Your task to perform on an android device: uninstall "Calculator" Image 0: 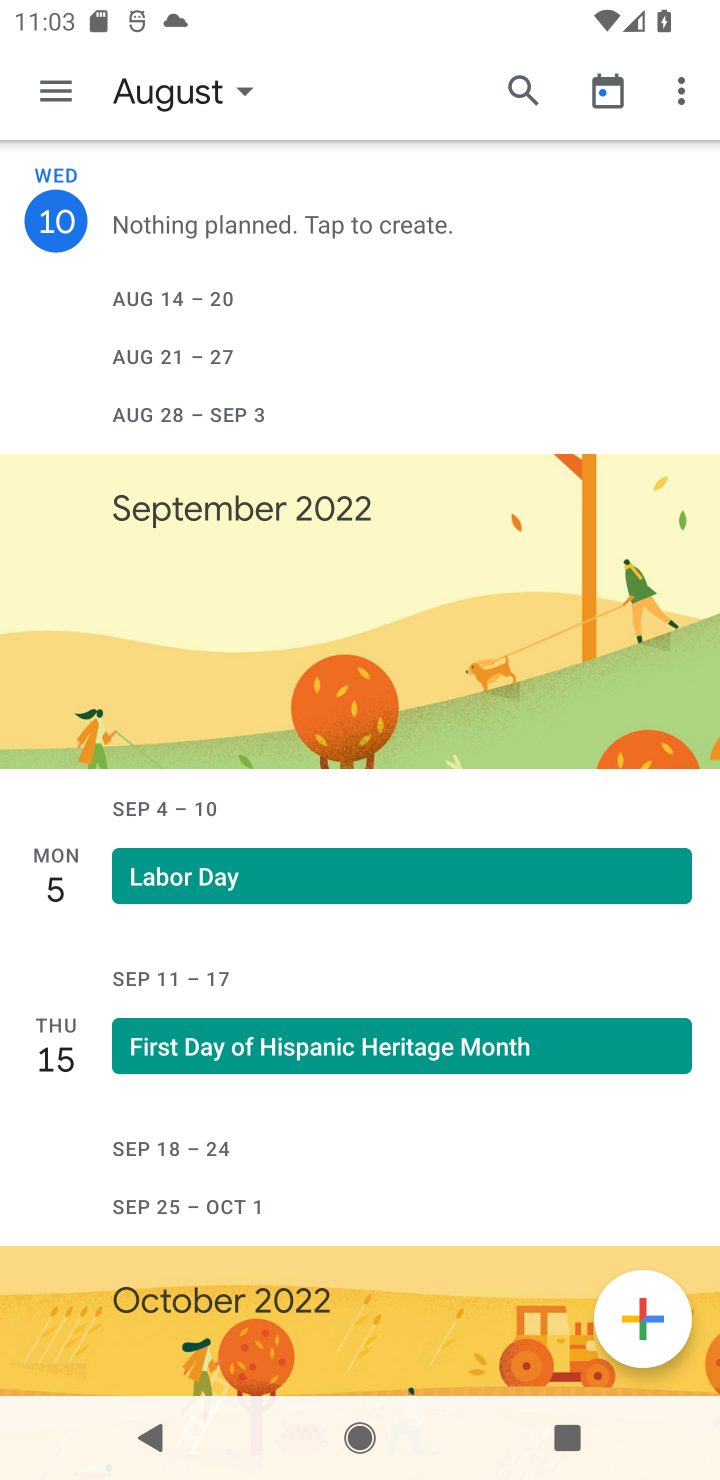
Step 0: press home button
Your task to perform on an android device: uninstall "Calculator" Image 1: 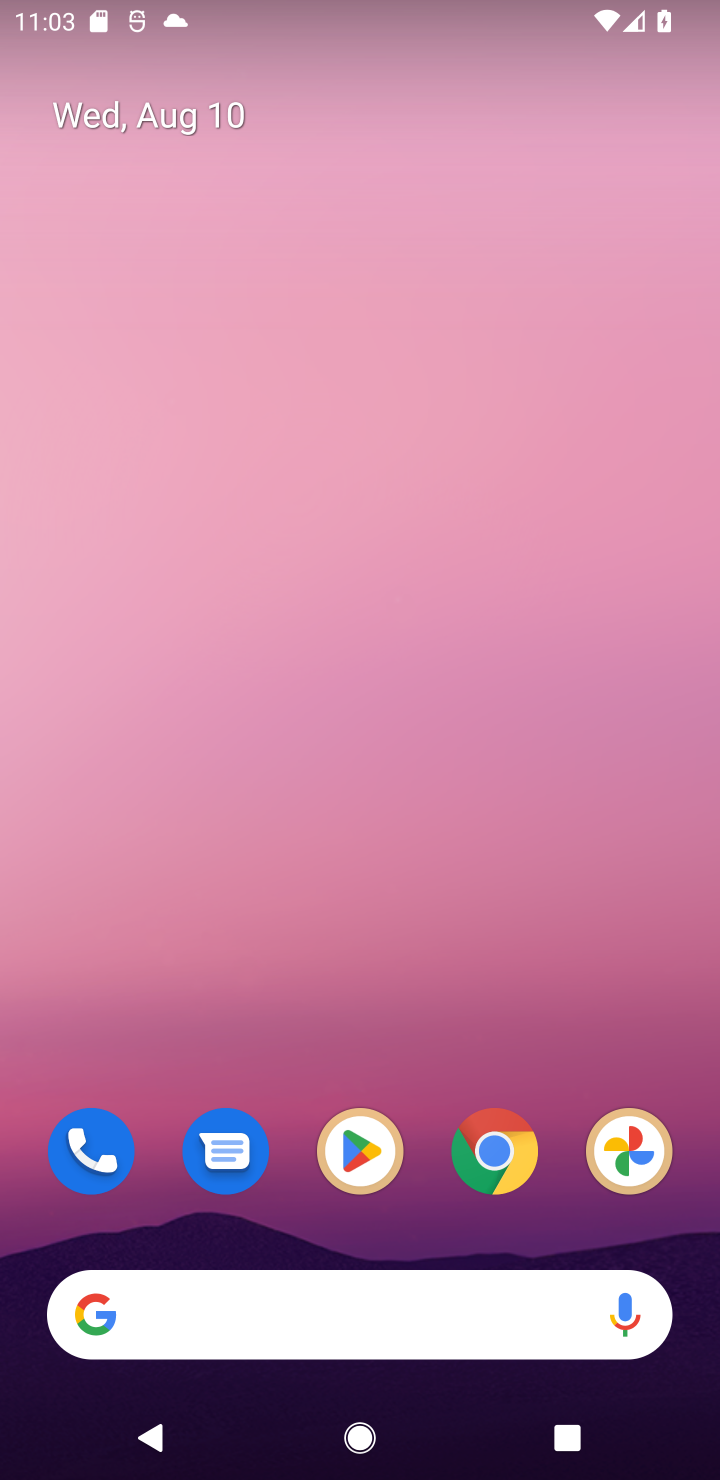
Step 1: drag from (436, 1176) to (411, 208)
Your task to perform on an android device: uninstall "Calculator" Image 2: 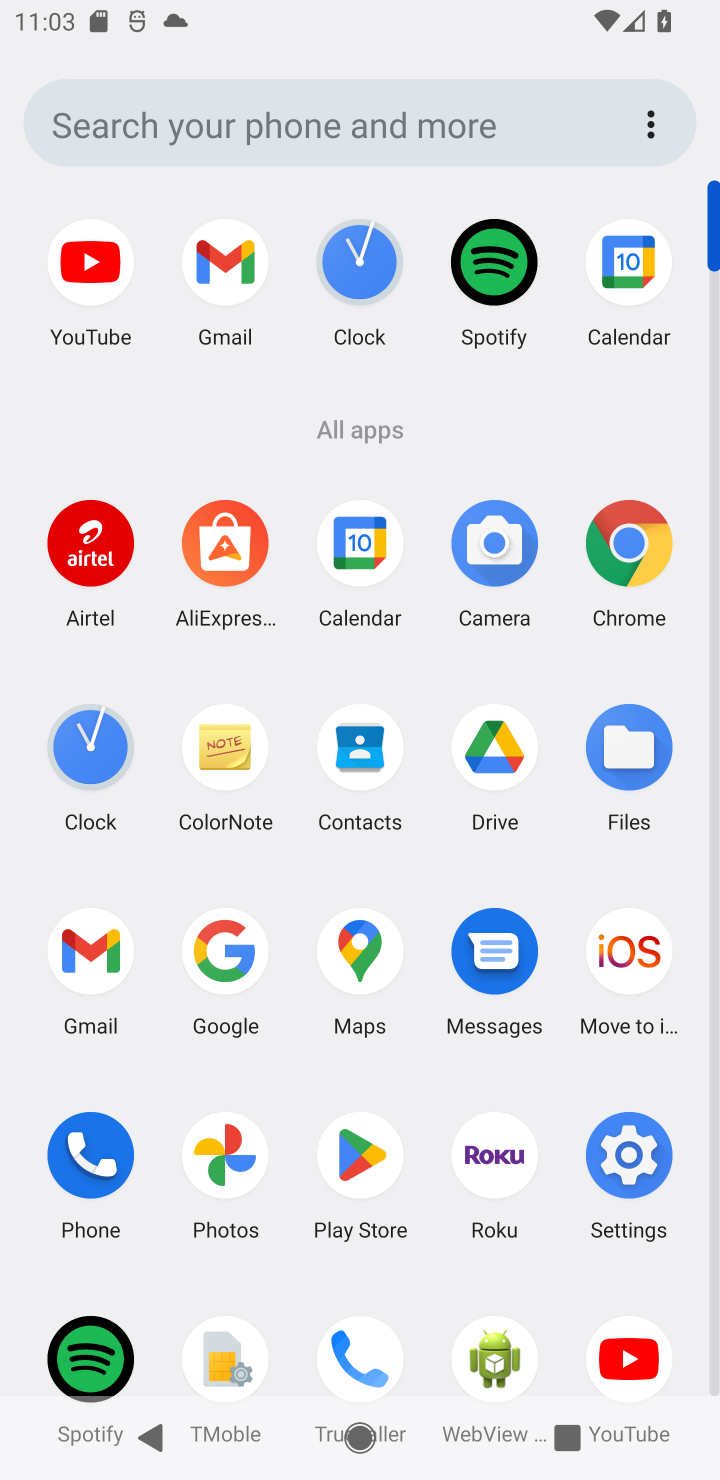
Step 2: click (348, 1153)
Your task to perform on an android device: uninstall "Calculator" Image 3: 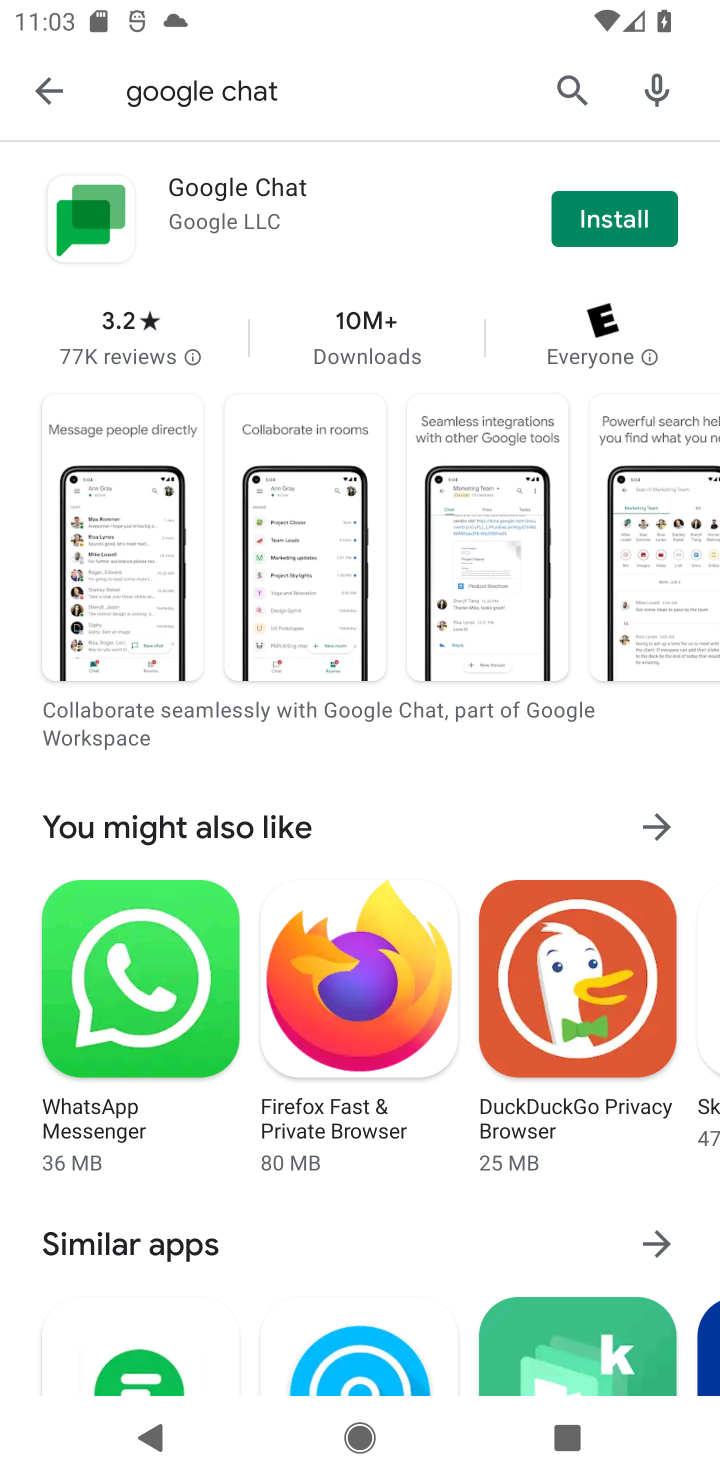
Step 3: click (566, 87)
Your task to perform on an android device: uninstall "Calculator" Image 4: 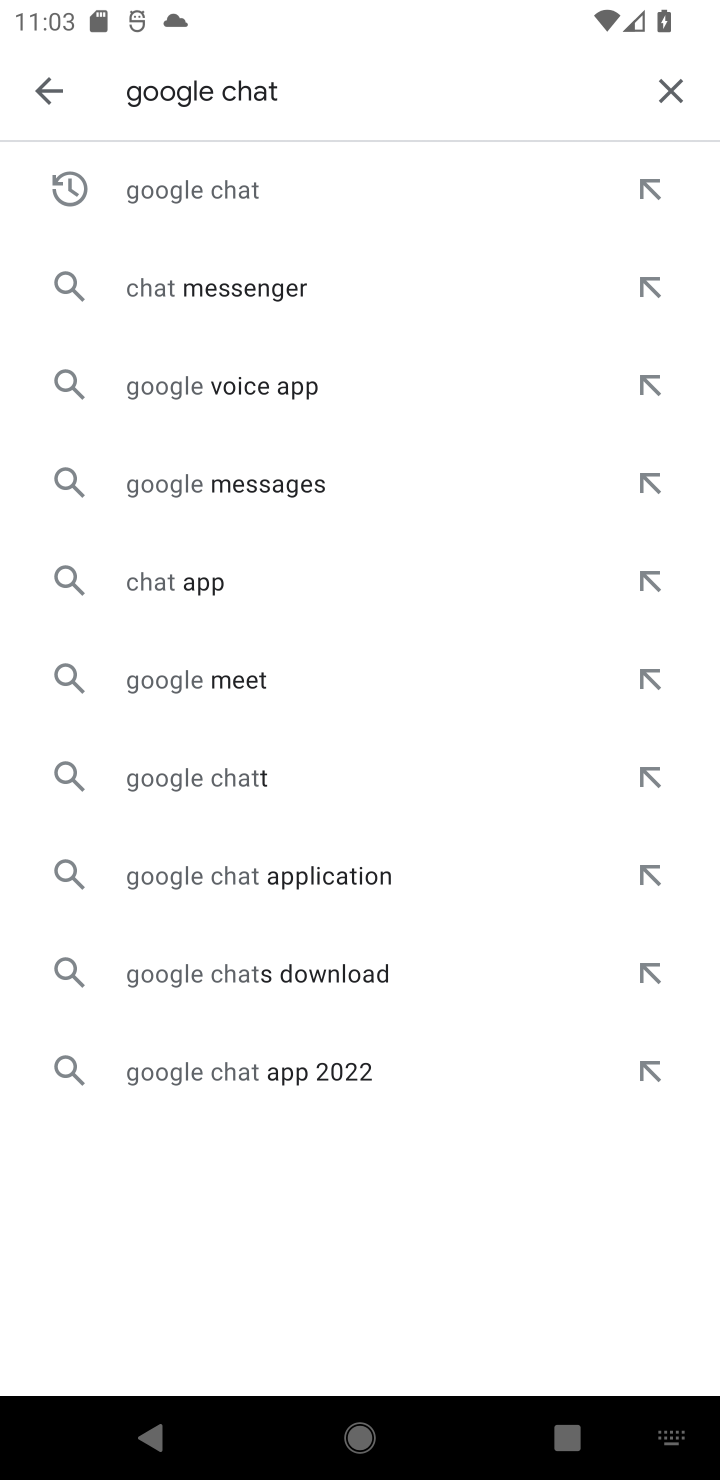
Step 4: click (664, 83)
Your task to perform on an android device: uninstall "Calculator" Image 5: 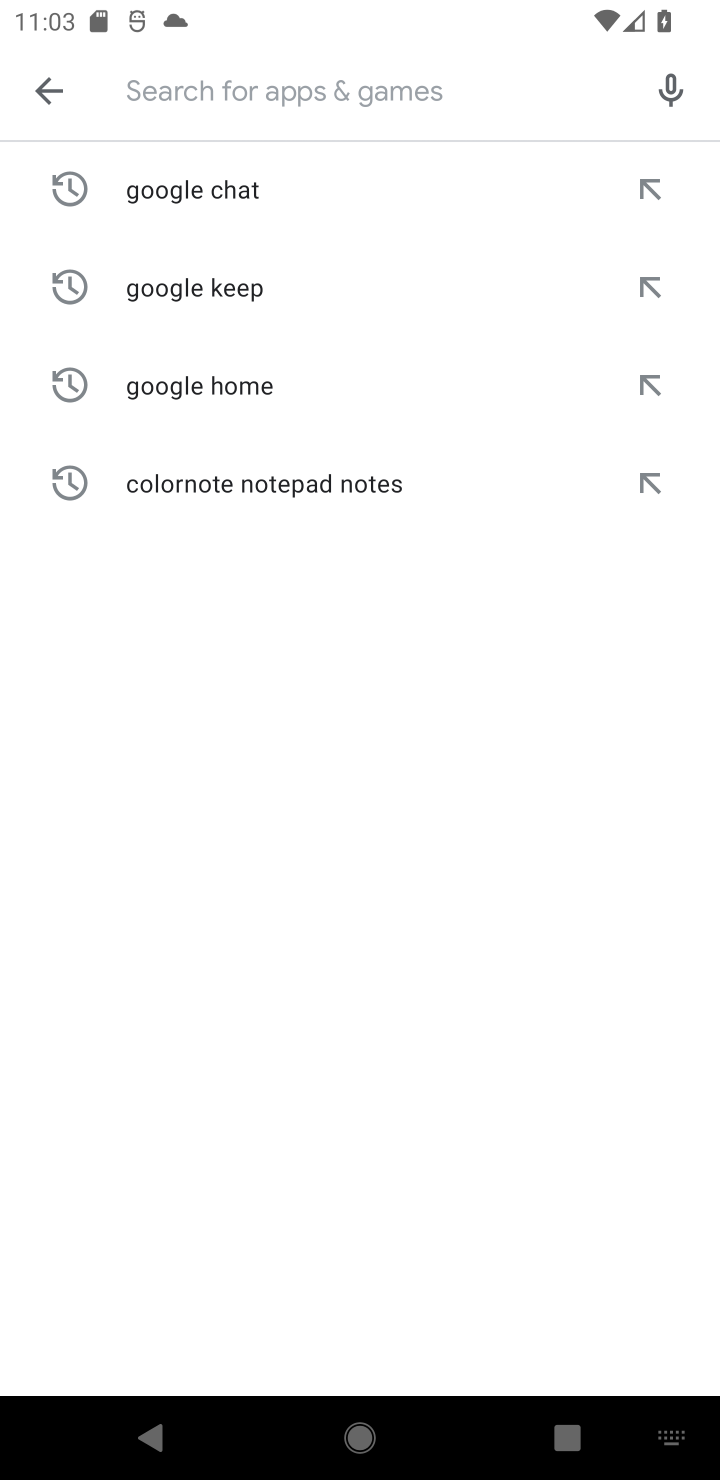
Step 5: type "Calculator"
Your task to perform on an android device: uninstall "Calculator" Image 6: 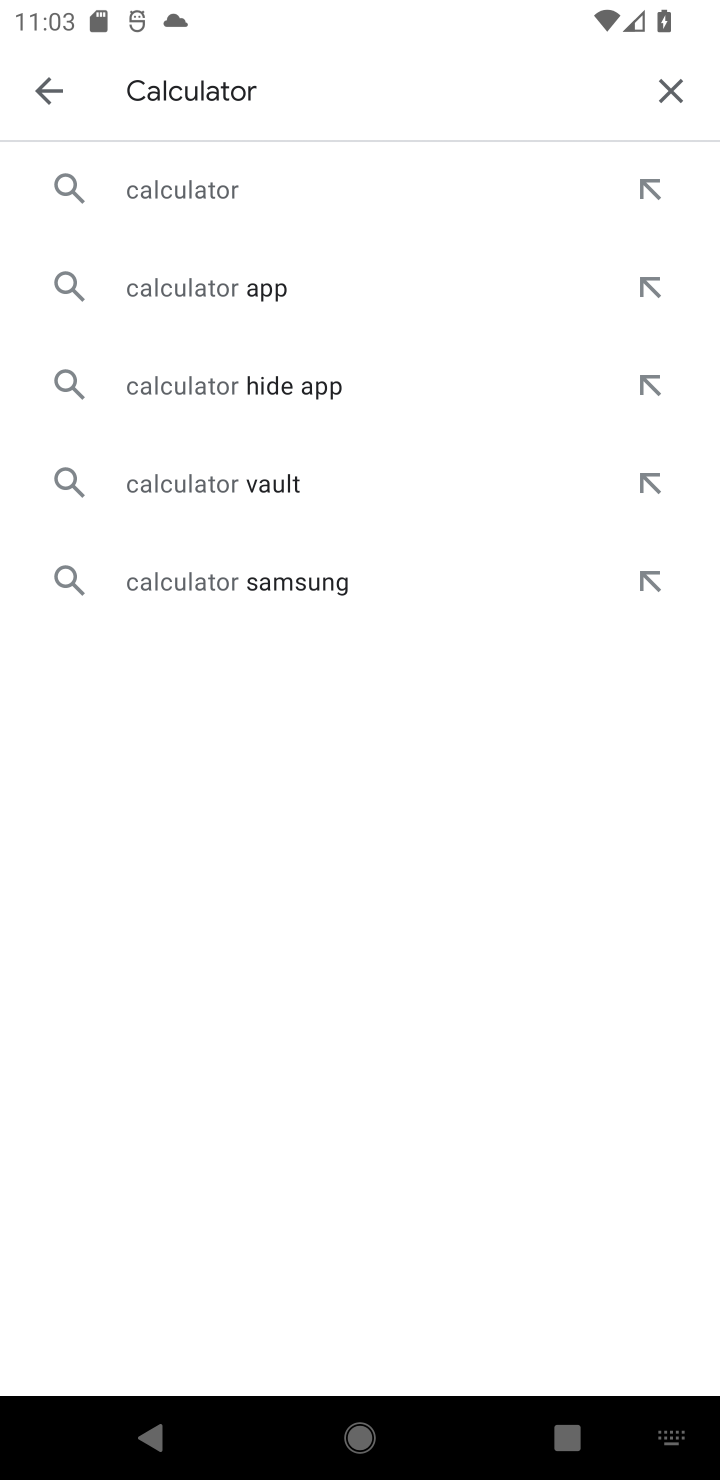
Step 6: click (238, 190)
Your task to perform on an android device: uninstall "Calculator" Image 7: 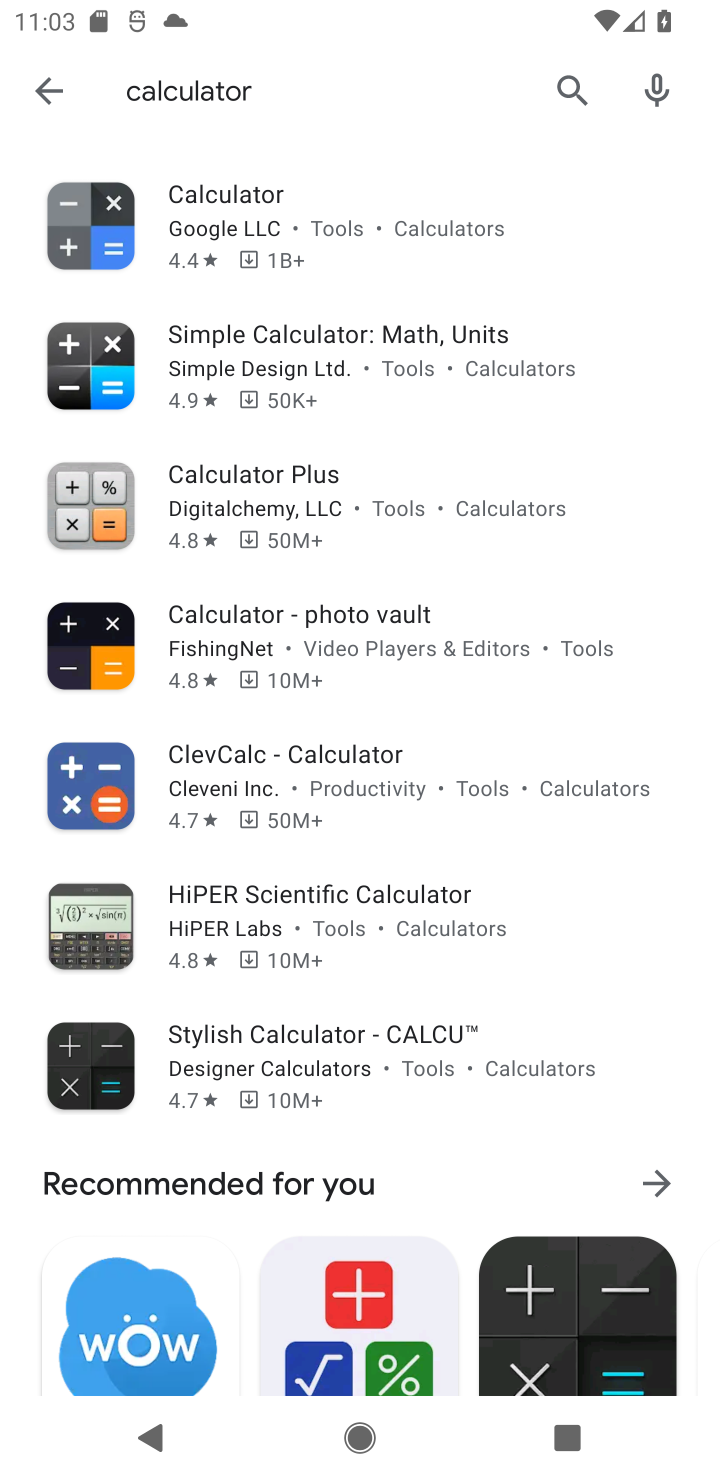
Step 7: click (266, 209)
Your task to perform on an android device: uninstall "Calculator" Image 8: 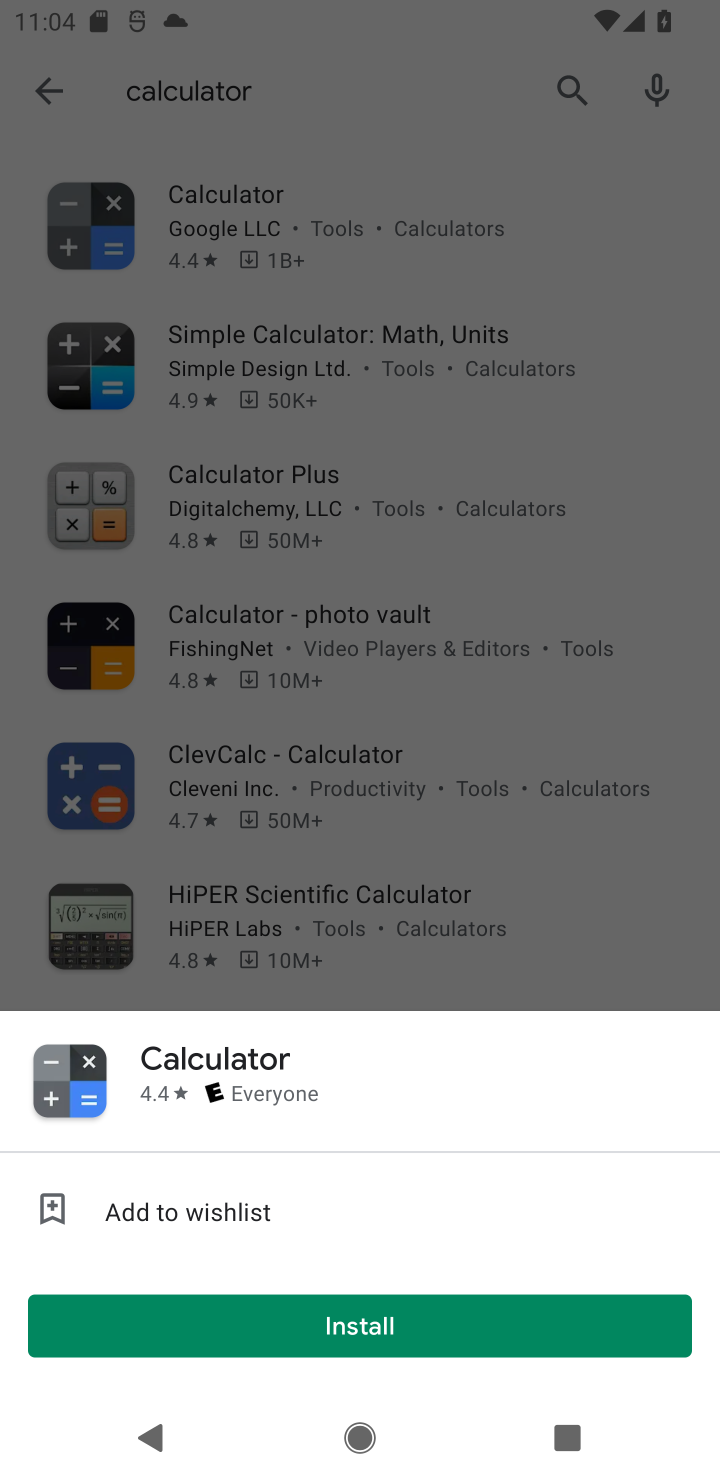
Step 8: click (389, 1336)
Your task to perform on an android device: uninstall "Calculator" Image 9: 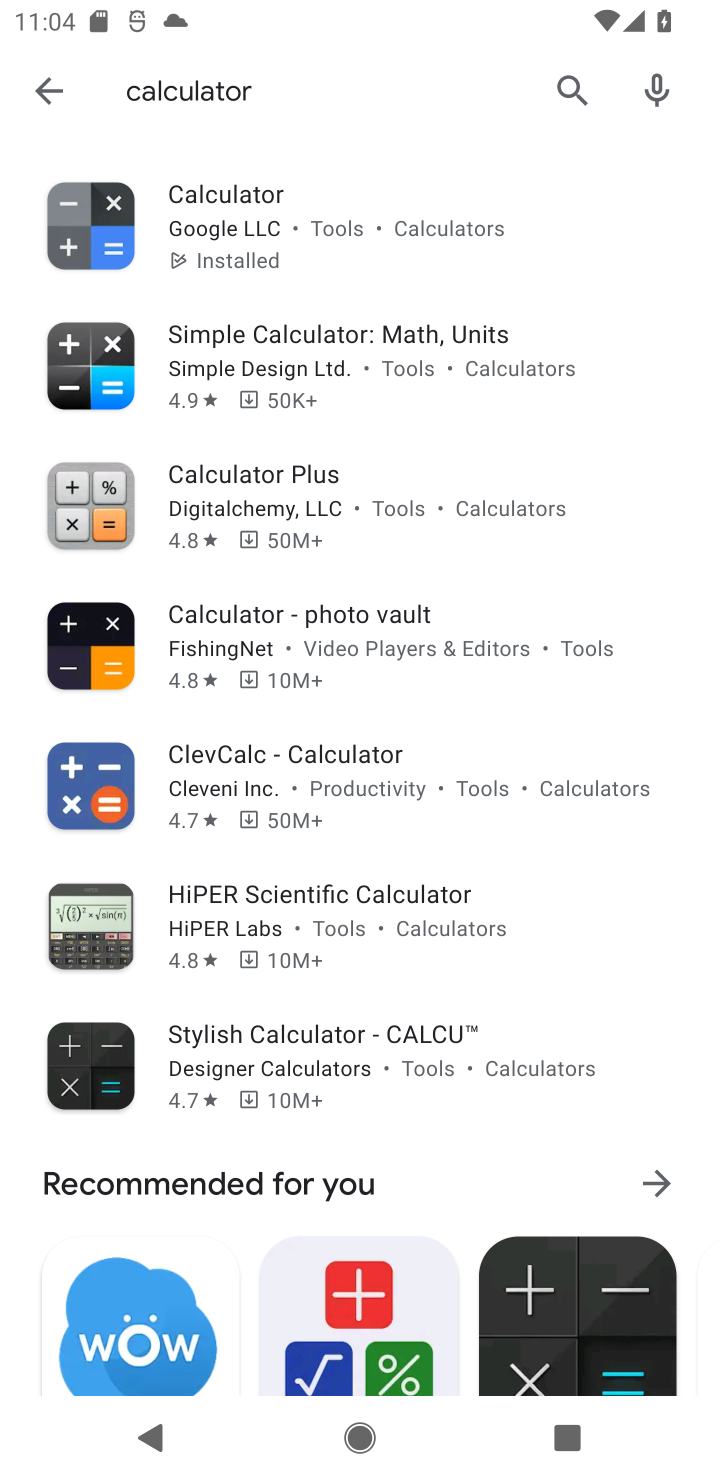
Step 9: click (261, 234)
Your task to perform on an android device: uninstall "Calculator" Image 10: 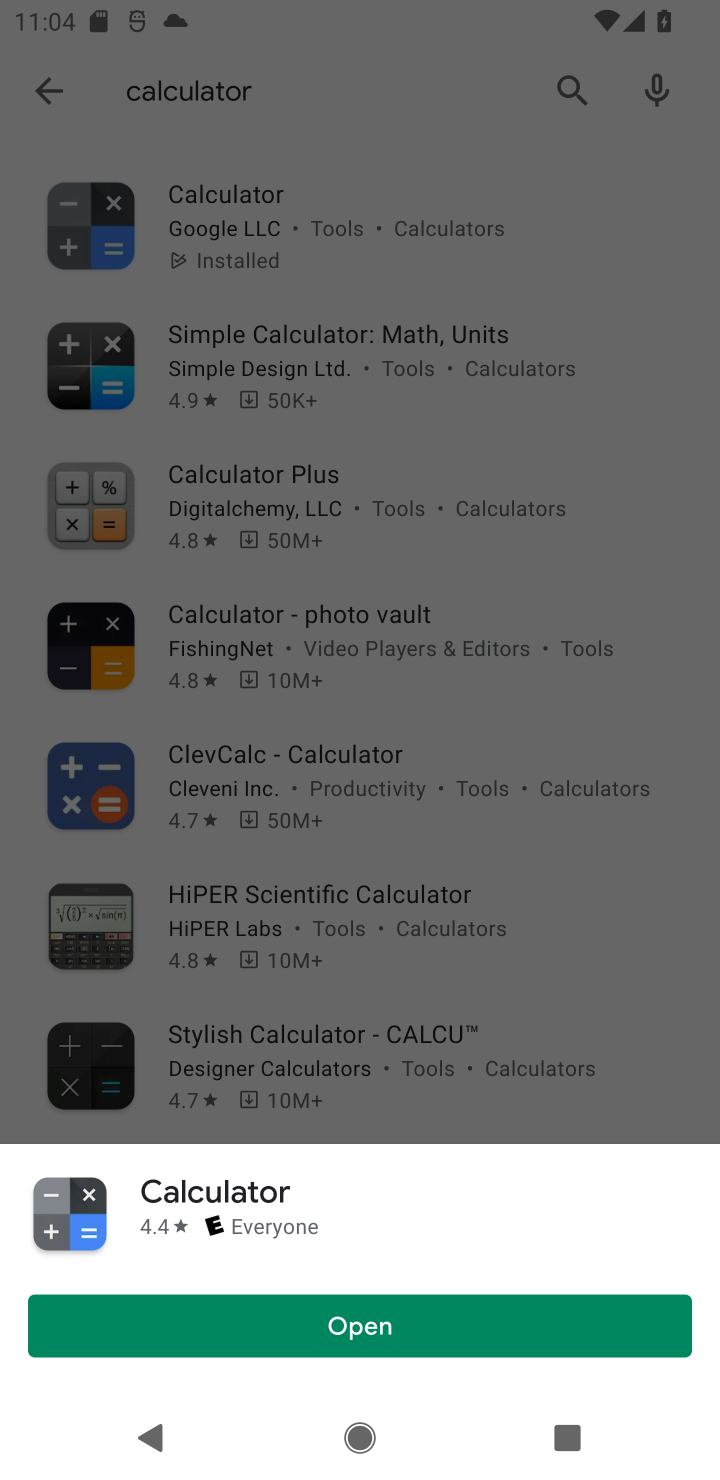
Step 10: task complete